Your task to perform on an android device: Open wifi settings Image 0: 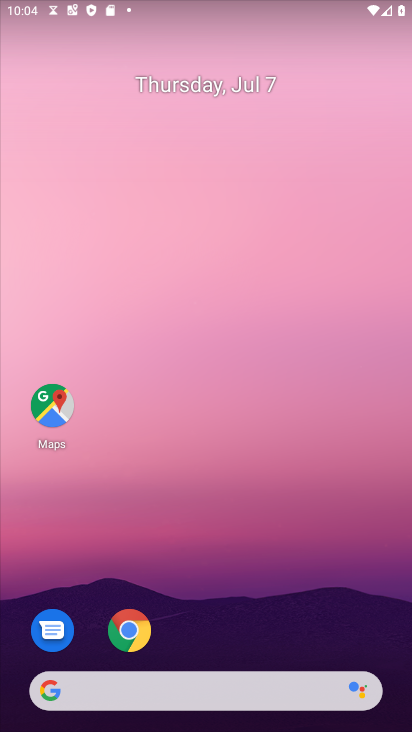
Step 0: drag from (161, 688) to (167, 234)
Your task to perform on an android device: Open wifi settings Image 1: 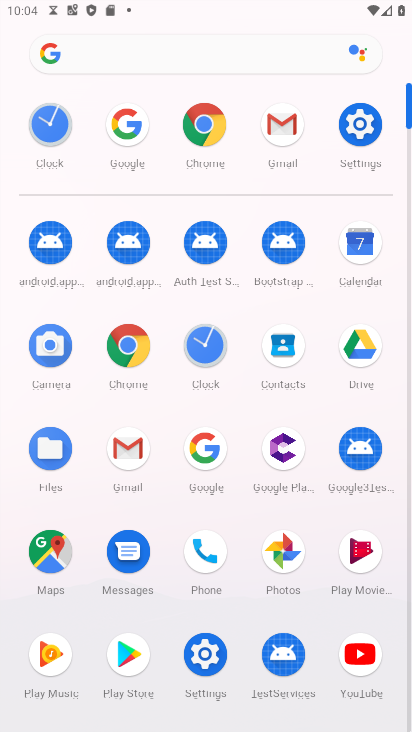
Step 1: click (348, 124)
Your task to perform on an android device: Open wifi settings Image 2: 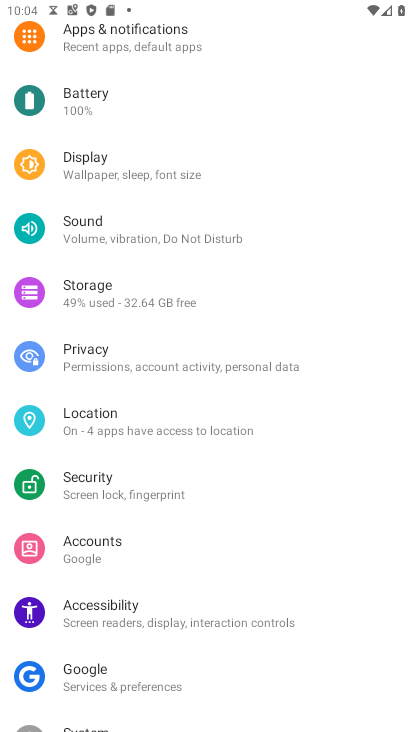
Step 2: drag from (155, 96) to (198, 645)
Your task to perform on an android device: Open wifi settings Image 3: 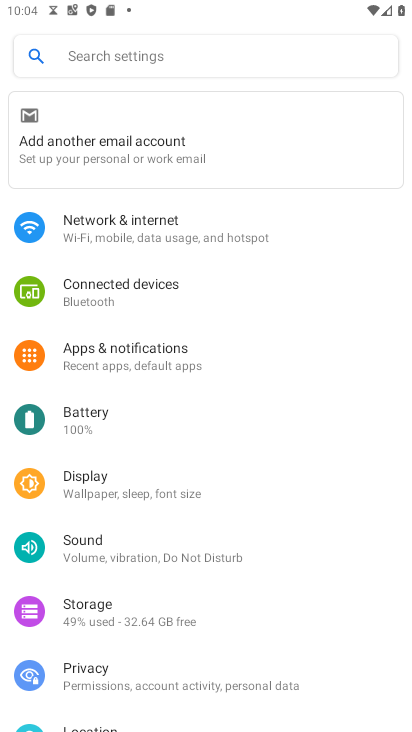
Step 3: click (89, 236)
Your task to perform on an android device: Open wifi settings Image 4: 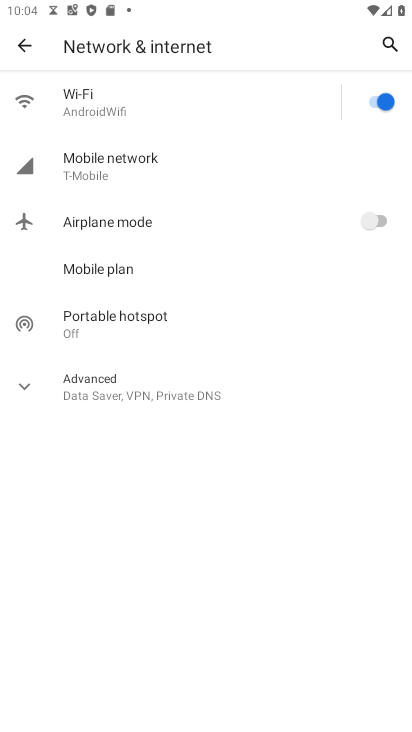
Step 4: click (83, 108)
Your task to perform on an android device: Open wifi settings Image 5: 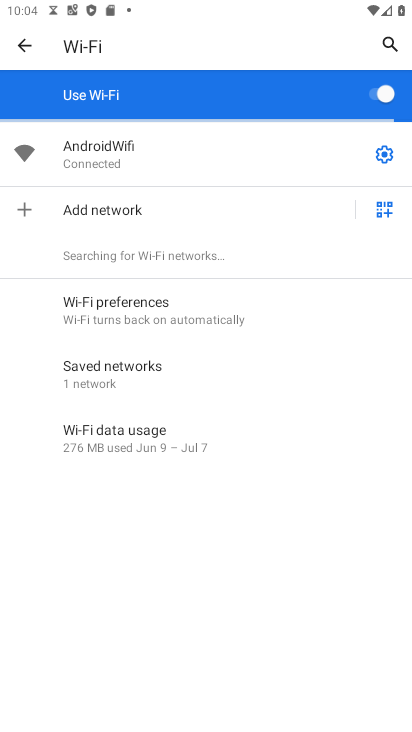
Step 5: click (382, 154)
Your task to perform on an android device: Open wifi settings Image 6: 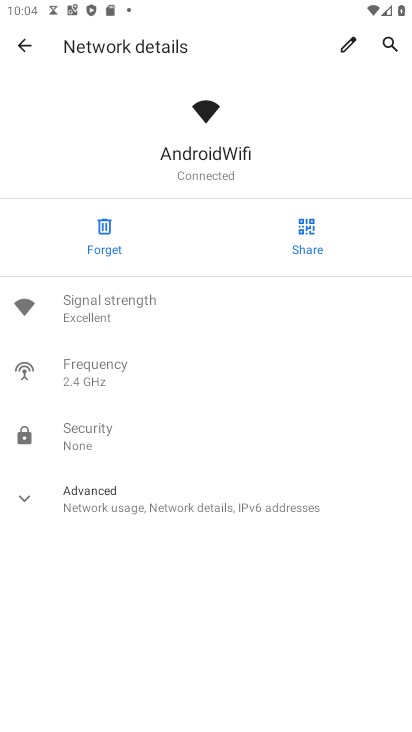
Step 6: click (210, 502)
Your task to perform on an android device: Open wifi settings Image 7: 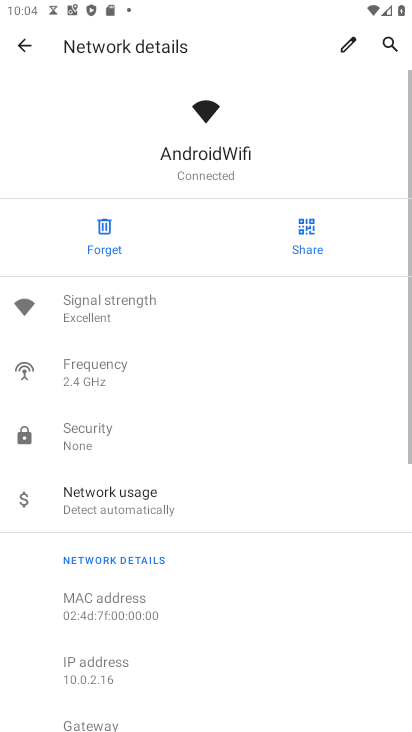
Step 7: task complete